Your task to perform on an android device: Toggle the flashlight Image 0: 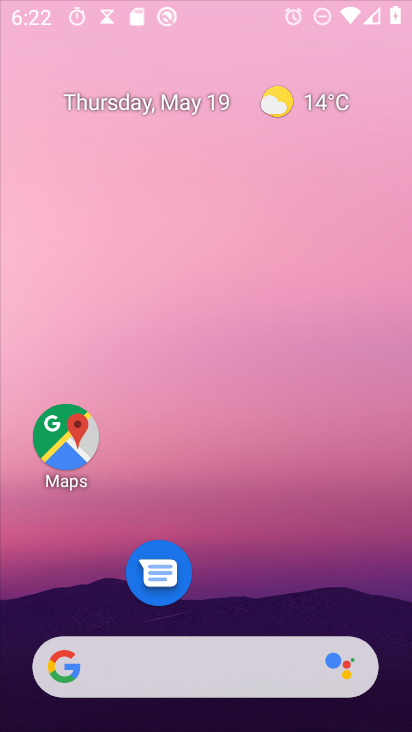
Step 0: click (232, 53)
Your task to perform on an android device: Toggle the flashlight Image 1: 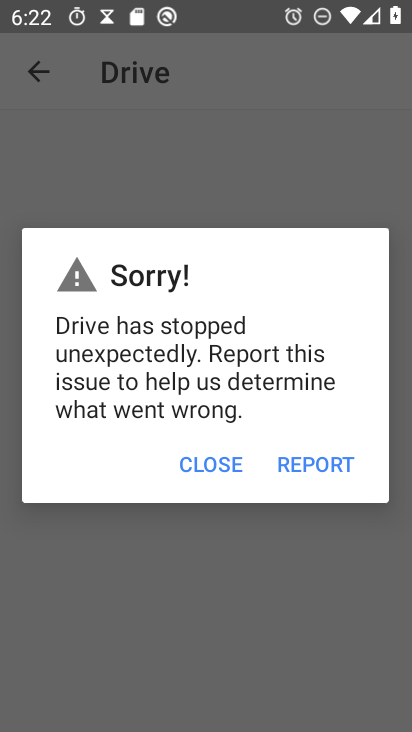
Step 1: click (191, 474)
Your task to perform on an android device: Toggle the flashlight Image 2: 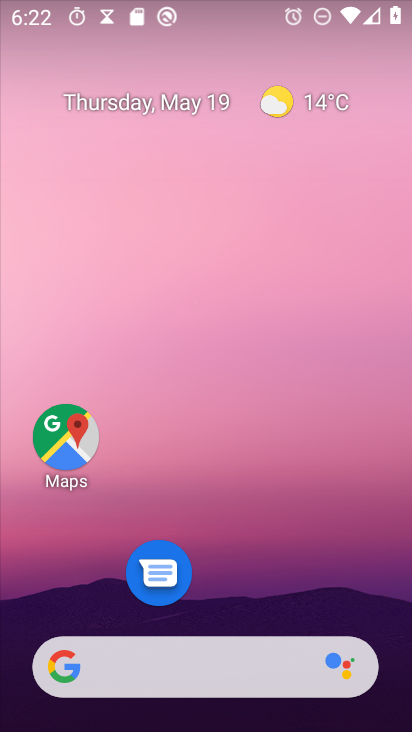
Step 2: drag from (242, 577) to (262, 48)
Your task to perform on an android device: Toggle the flashlight Image 3: 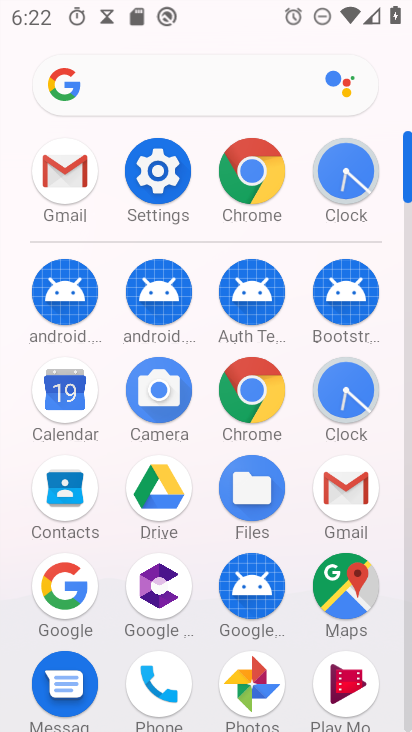
Step 3: click (176, 157)
Your task to perform on an android device: Toggle the flashlight Image 4: 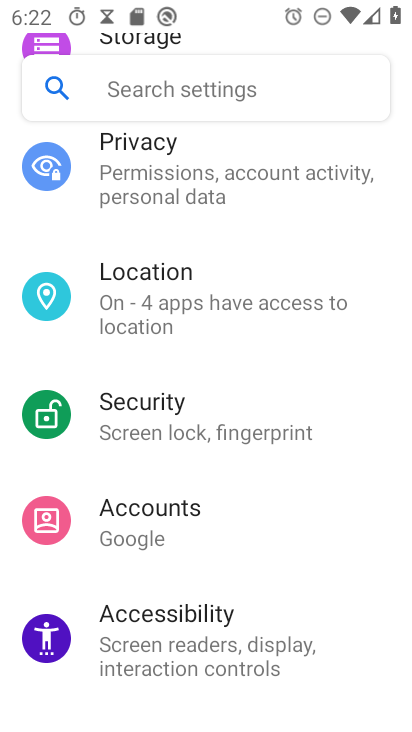
Step 4: task complete